Your task to perform on an android device: open device folders in google photos Image 0: 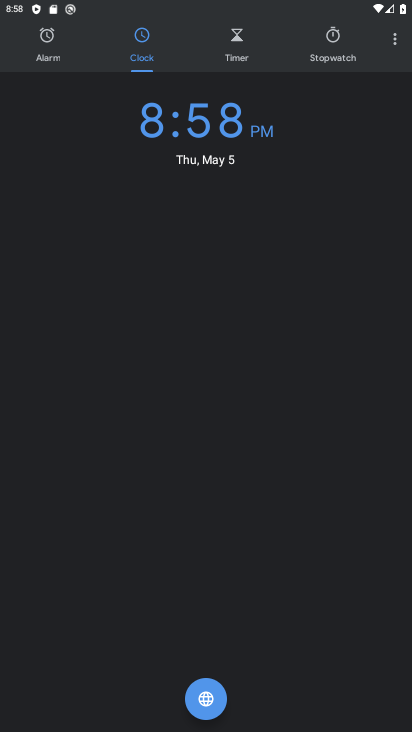
Step 0: press home button
Your task to perform on an android device: open device folders in google photos Image 1: 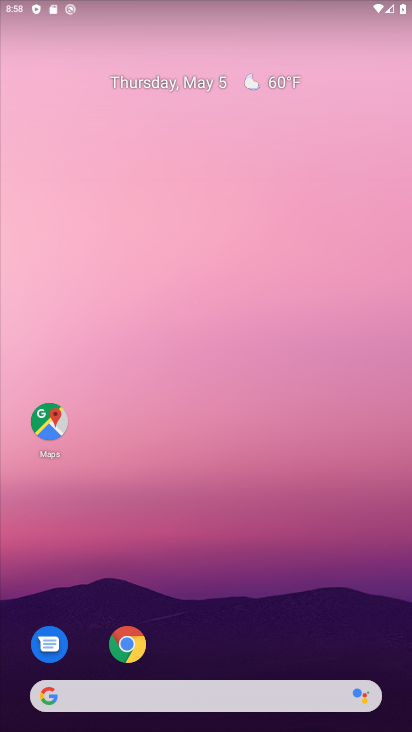
Step 1: drag from (186, 623) to (286, 53)
Your task to perform on an android device: open device folders in google photos Image 2: 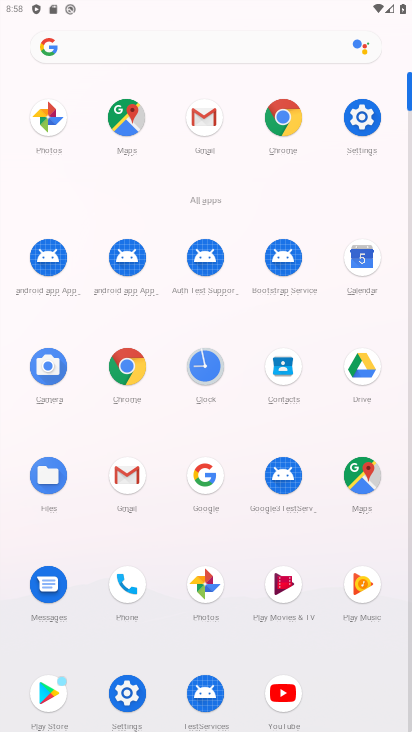
Step 2: click (199, 593)
Your task to perform on an android device: open device folders in google photos Image 3: 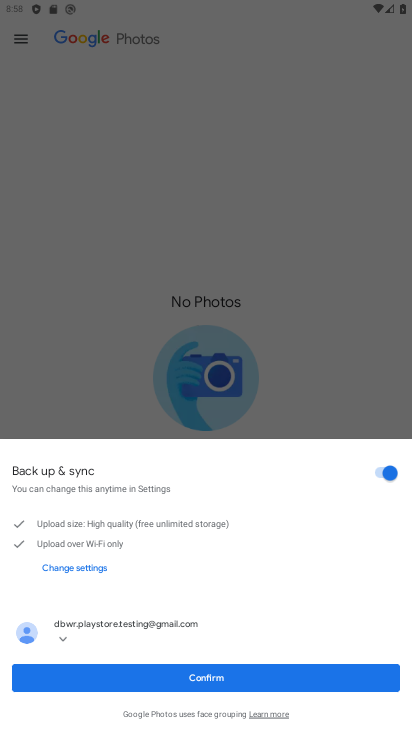
Step 3: click (195, 676)
Your task to perform on an android device: open device folders in google photos Image 4: 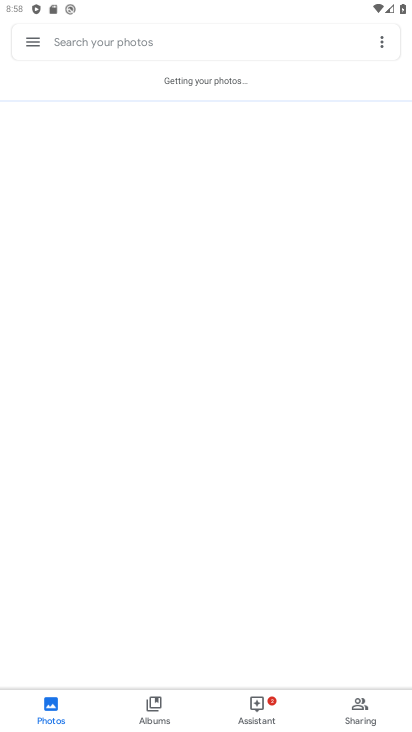
Step 4: click (29, 44)
Your task to perform on an android device: open device folders in google photos Image 5: 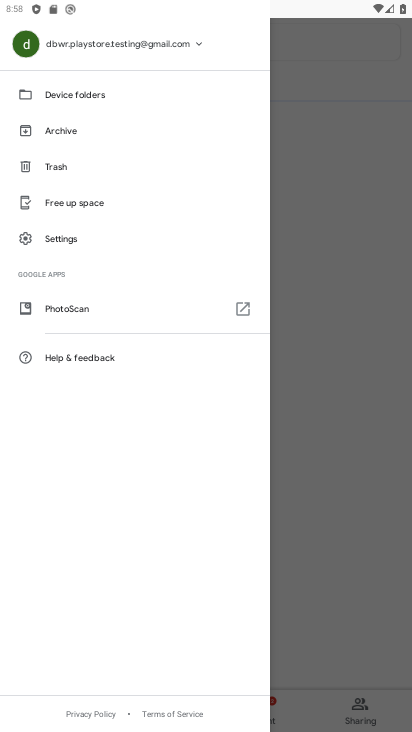
Step 5: click (67, 97)
Your task to perform on an android device: open device folders in google photos Image 6: 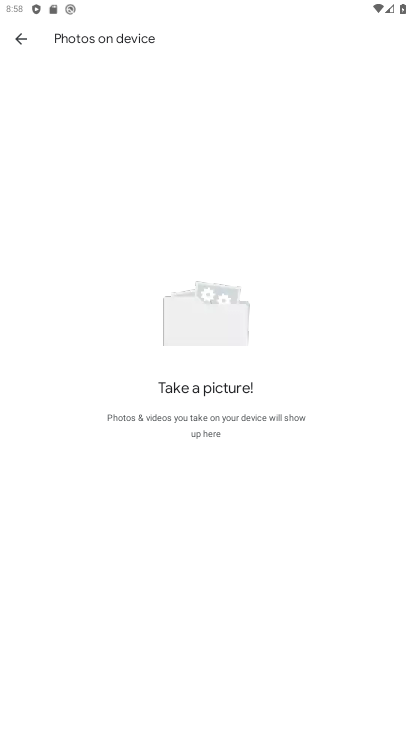
Step 6: task complete